Your task to perform on an android device: delete browsing data in the chrome app Image 0: 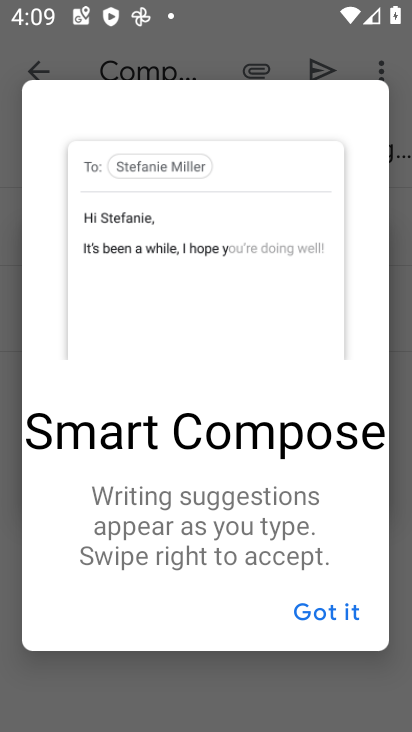
Step 0: press home button
Your task to perform on an android device: delete browsing data in the chrome app Image 1: 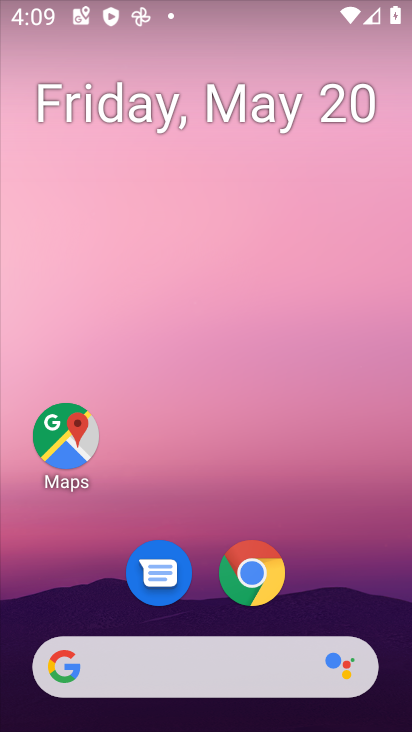
Step 1: click (254, 577)
Your task to perform on an android device: delete browsing data in the chrome app Image 2: 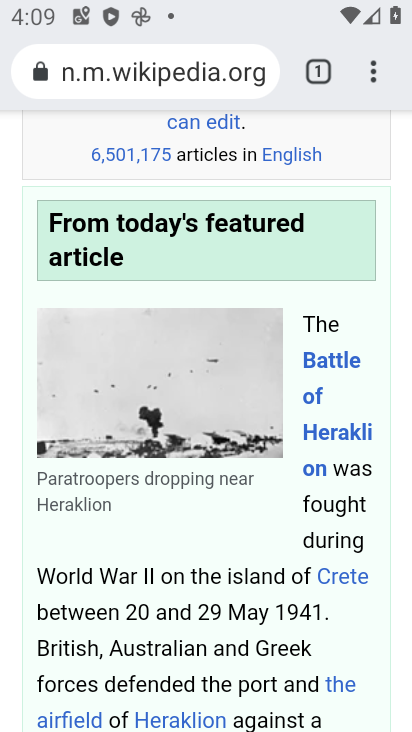
Step 2: click (370, 73)
Your task to perform on an android device: delete browsing data in the chrome app Image 3: 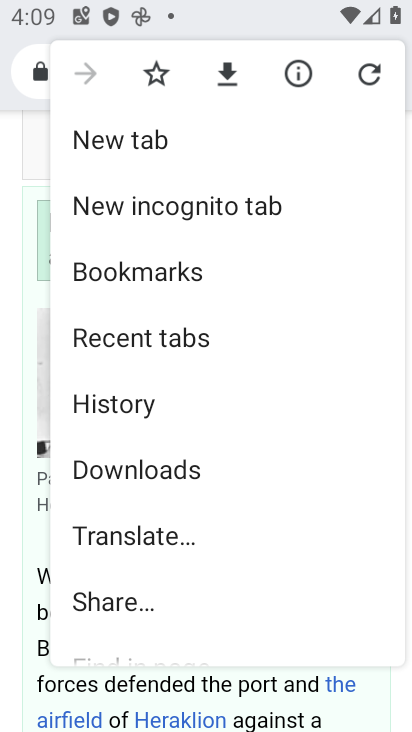
Step 3: click (127, 392)
Your task to perform on an android device: delete browsing data in the chrome app Image 4: 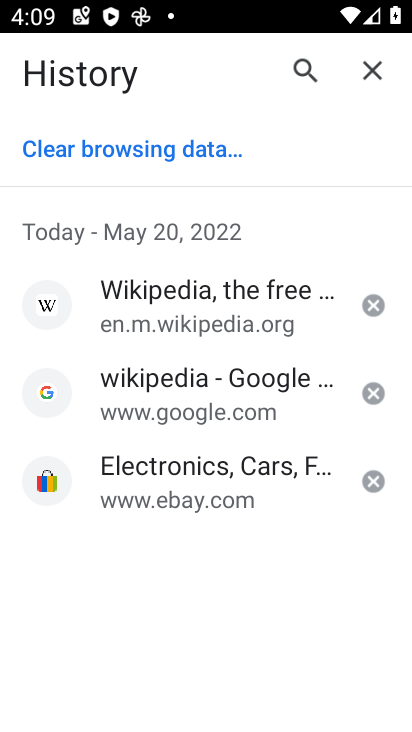
Step 4: click (128, 150)
Your task to perform on an android device: delete browsing data in the chrome app Image 5: 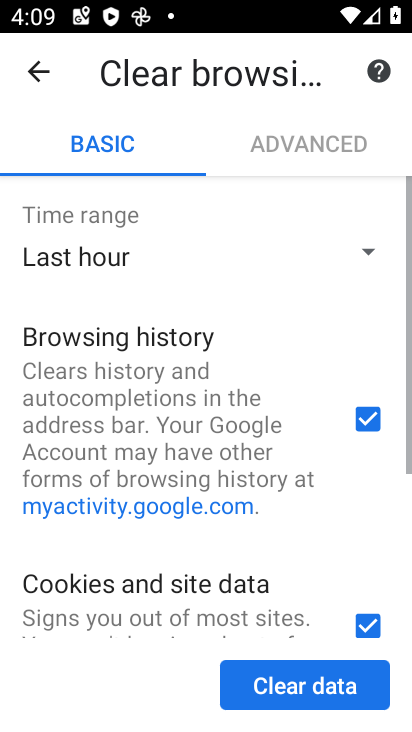
Step 5: drag from (306, 564) to (292, 342)
Your task to perform on an android device: delete browsing data in the chrome app Image 6: 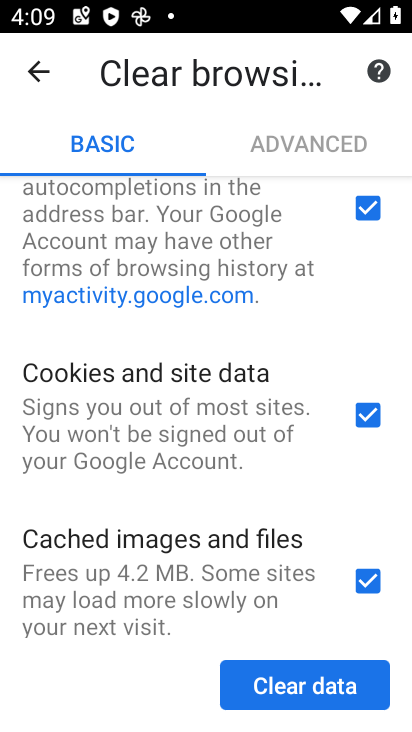
Step 6: click (367, 412)
Your task to perform on an android device: delete browsing data in the chrome app Image 7: 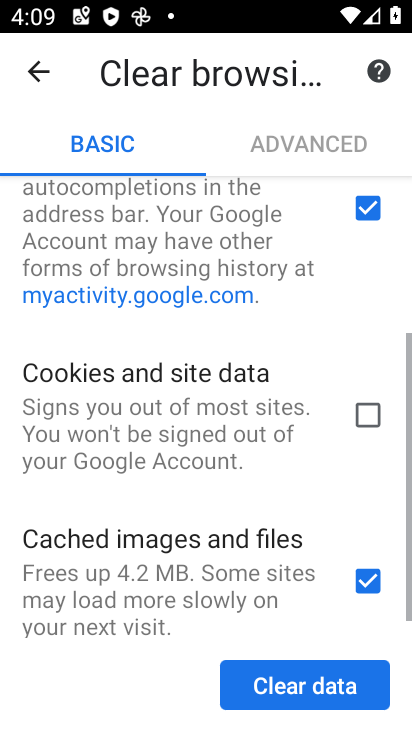
Step 7: click (371, 578)
Your task to perform on an android device: delete browsing data in the chrome app Image 8: 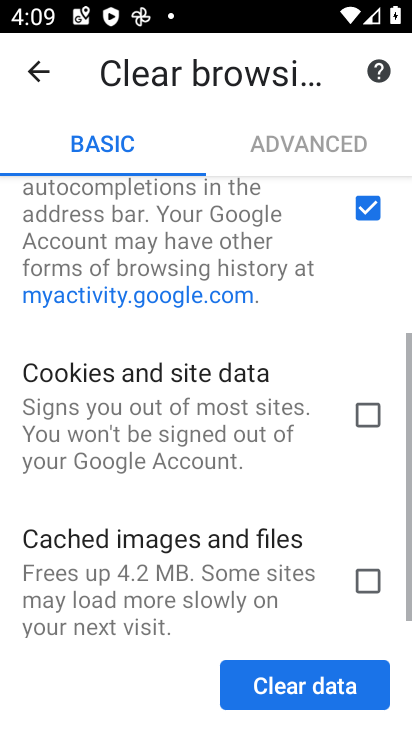
Step 8: click (292, 694)
Your task to perform on an android device: delete browsing data in the chrome app Image 9: 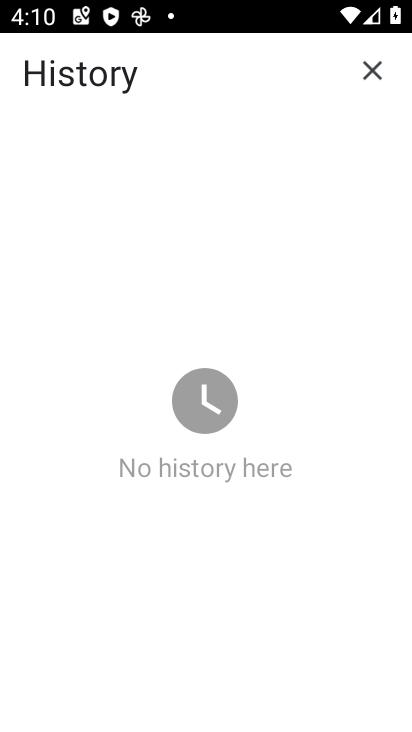
Step 9: task complete